Your task to perform on an android device: open wifi settings Image 0: 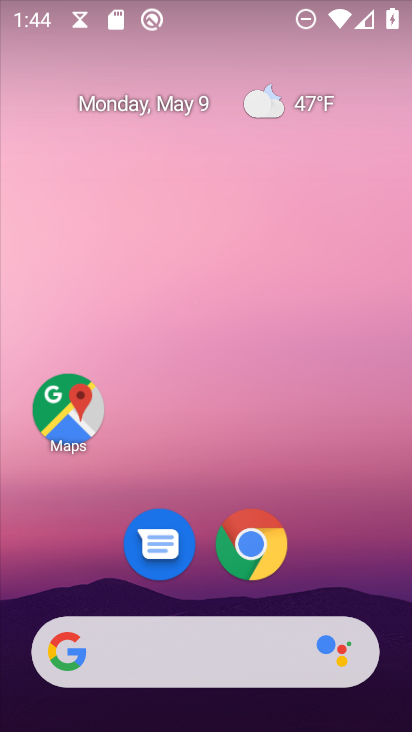
Step 0: drag from (339, 546) to (384, 195)
Your task to perform on an android device: open wifi settings Image 1: 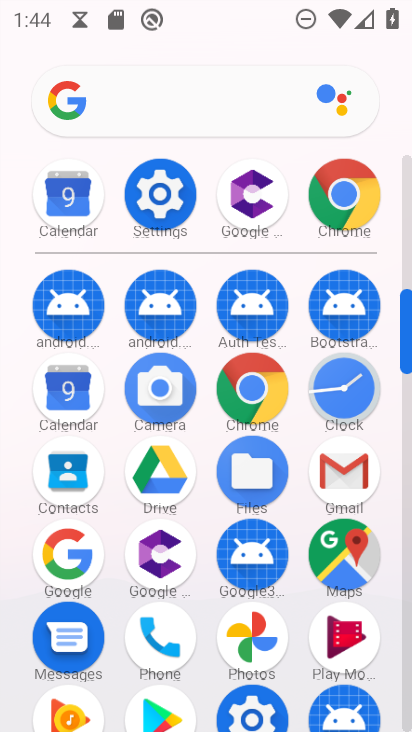
Step 1: click (159, 200)
Your task to perform on an android device: open wifi settings Image 2: 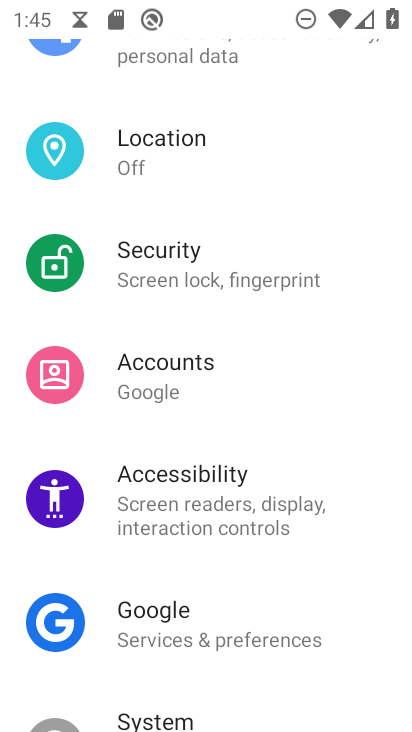
Step 2: drag from (241, 170) to (282, 555)
Your task to perform on an android device: open wifi settings Image 3: 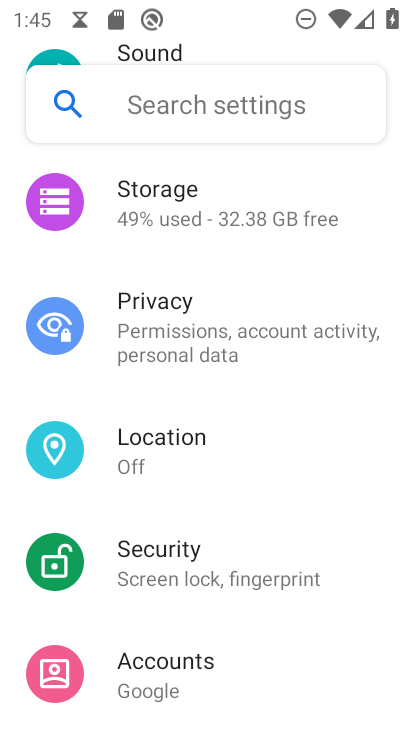
Step 3: drag from (264, 242) to (249, 569)
Your task to perform on an android device: open wifi settings Image 4: 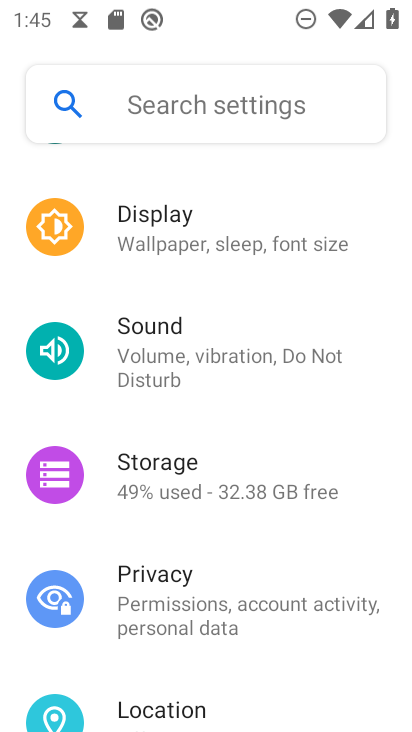
Step 4: drag from (280, 277) to (279, 556)
Your task to perform on an android device: open wifi settings Image 5: 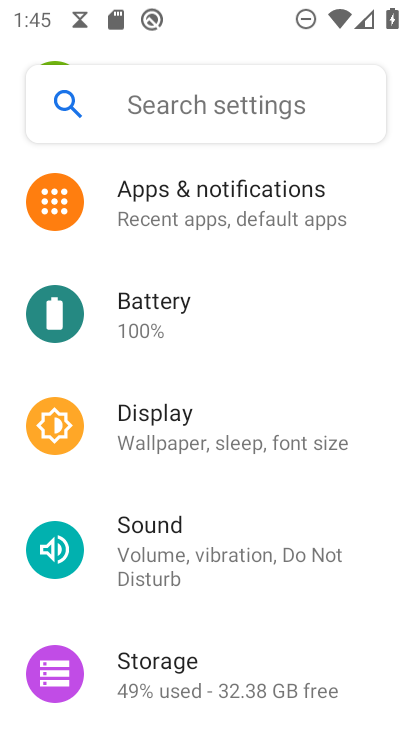
Step 5: drag from (213, 288) to (171, 604)
Your task to perform on an android device: open wifi settings Image 6: 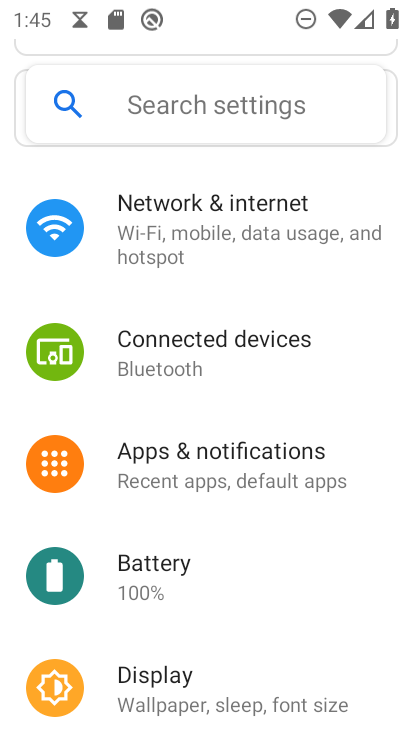
Step 6: drag from (198, 274) to (201, 527)
Your task to perform on an android device: open wifi settings Image 7: 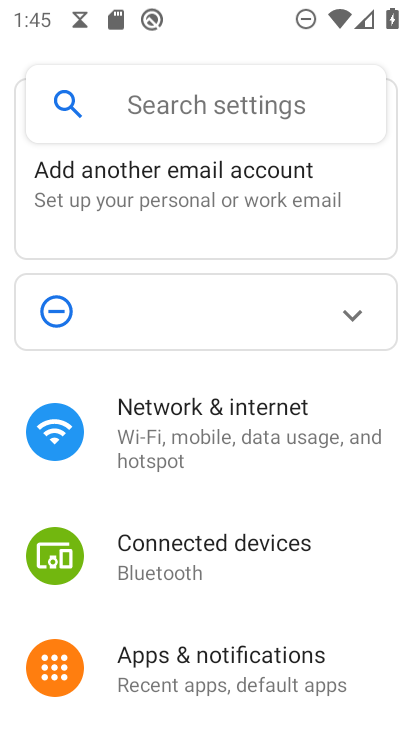
Step 7: click (198, 397)
Your task to perform on an android device: open wifi settings Image 8: 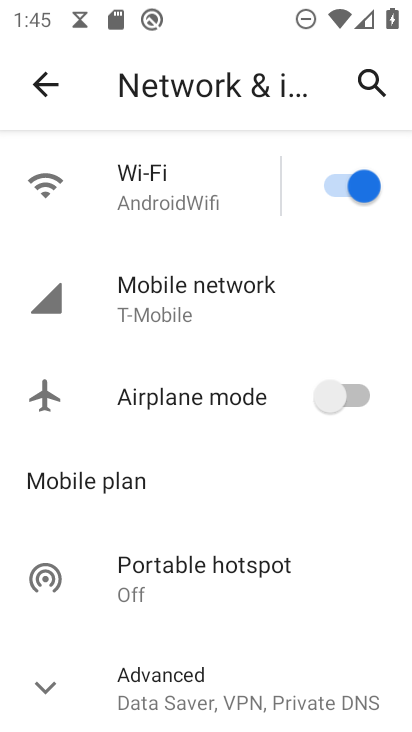
Step 8: click (147, 164)
Your task to perform on an android device: open wifi settings Image 9: 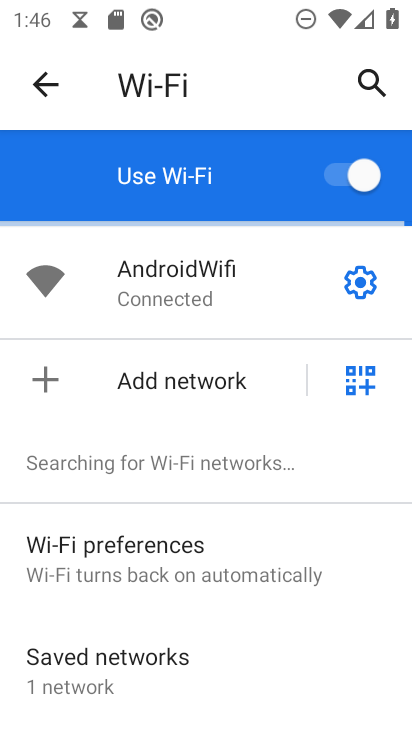
Step 9: task complete